Your task to perform on an android device: turn on airplane mode Image 0: 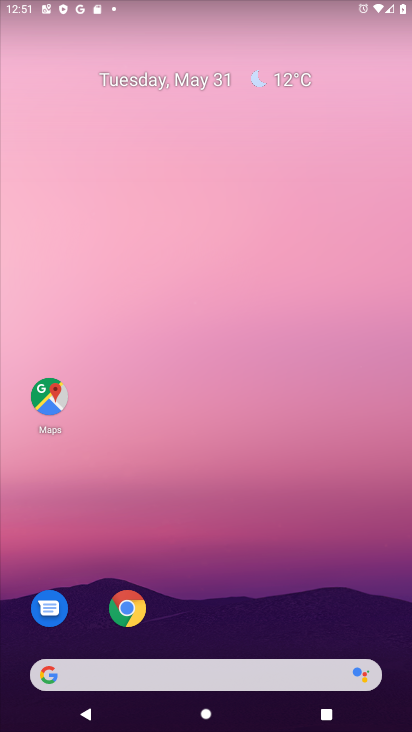
Step 0: drag from (205, 605) to (165, 87)
Your task to perform on an android device: turn on airplane mode Image 1: 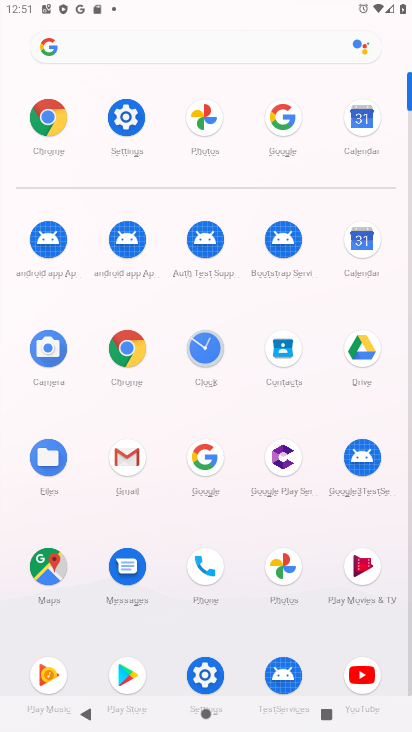
Step 1: click (125, 123)
Your task to perform on an android device: turn on airplane mode Image 2: 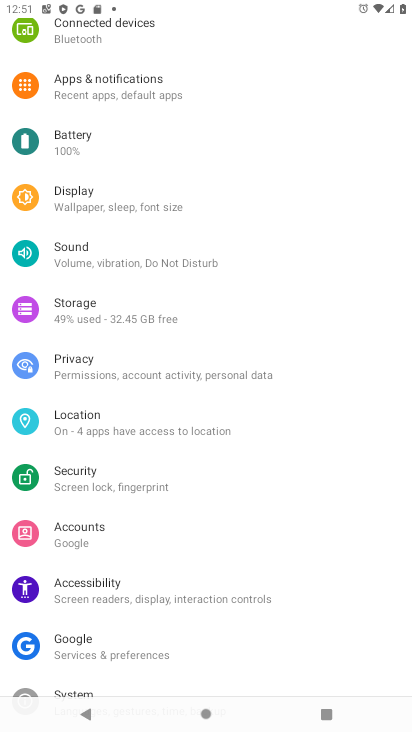
Step 2: drag from (130, 101) to (221, 574)
Your task to perform on an android device: turn on airplane mode Image 3: 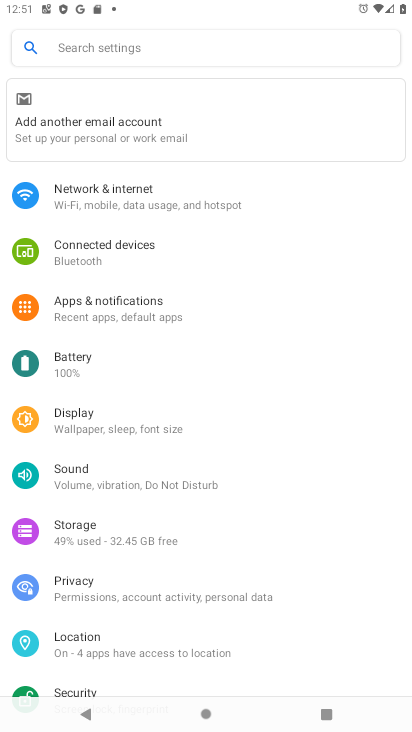
Step 3: click (97, 181)
Your task to perform on an android device: turn on airplane mode Image 4: 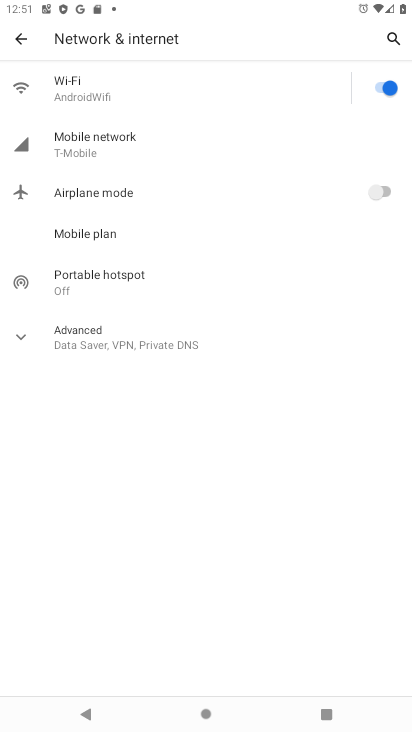
Step 4: click (377, 196)
Your task to perform on an android device: turn on airplane mode Image 5: 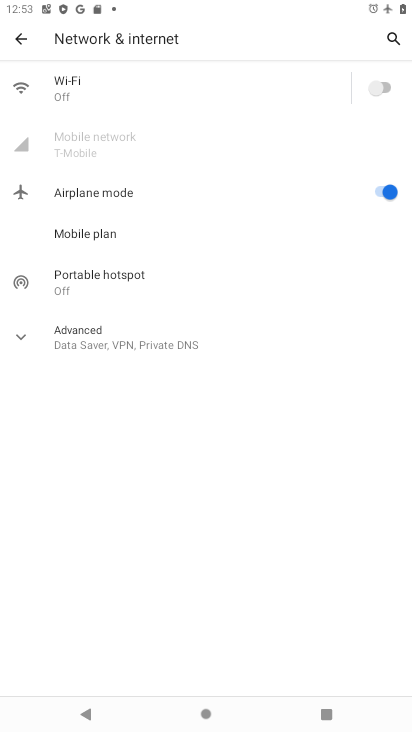
Step 5: task complete